Your task to perform on an android device: Go to Yahoo.com Image 0: 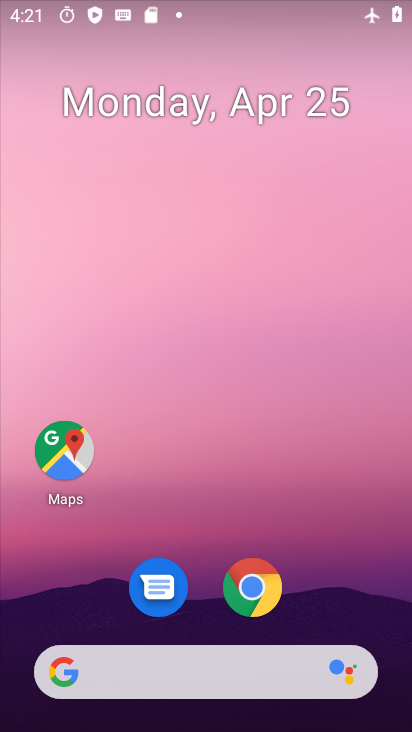
Step 0: drag from (329, 541) to (261, 66)
Your task to perform on an android device: Go to Yahoo.com Image 1: 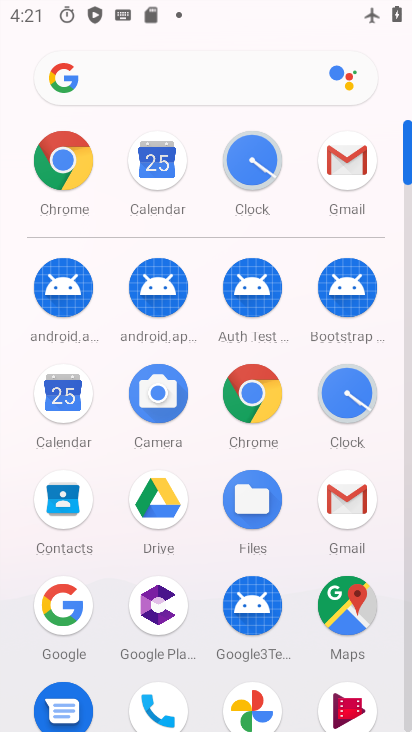
Step 1: click (253, 397)
Your task to perform on an android device: Go to Yahoo.com Image 2: 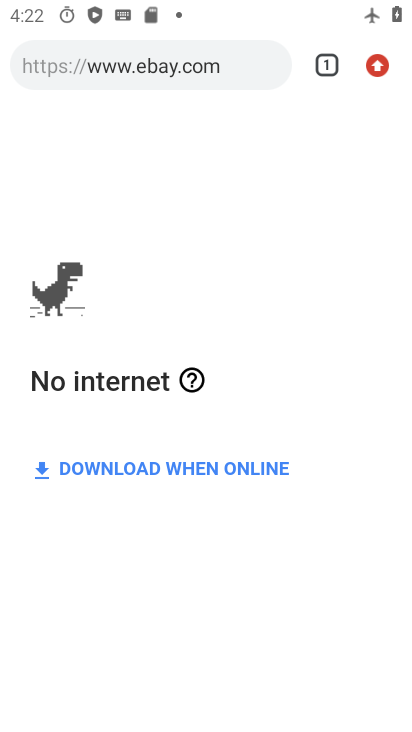
Step 2: click (196, 63)
Your task to perform on an android device: Go to Yahoo.com Image 3: 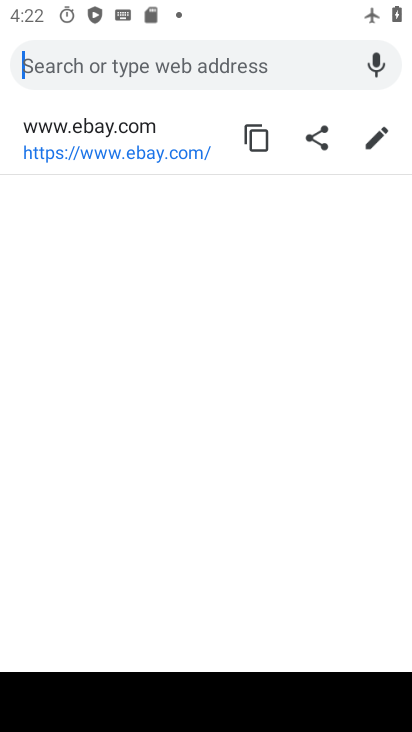
Step 3: type "yahoo.com"
Your task to perform on an android device: Go to Yahoo.com Image 4: 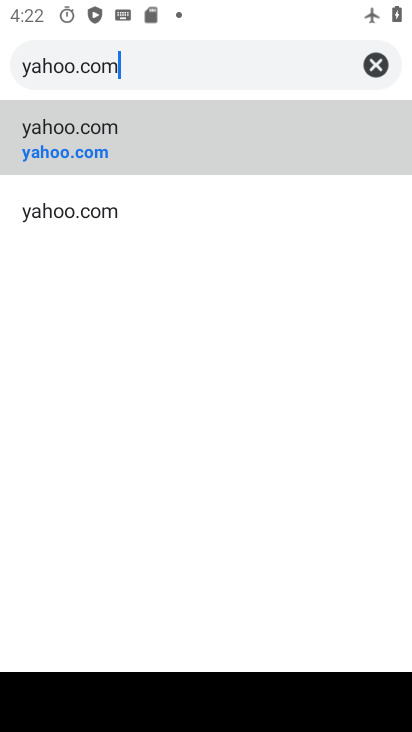
Step 4: click (125, 143)
Your task to perform on an android device: Go to Yahoo.com Image 5: 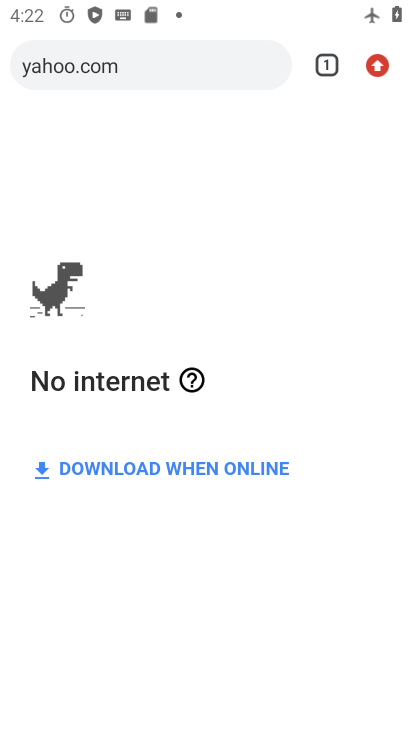
Step 5: task complete